Your task to perform on an android device: open app "Google Keep" Image 0: 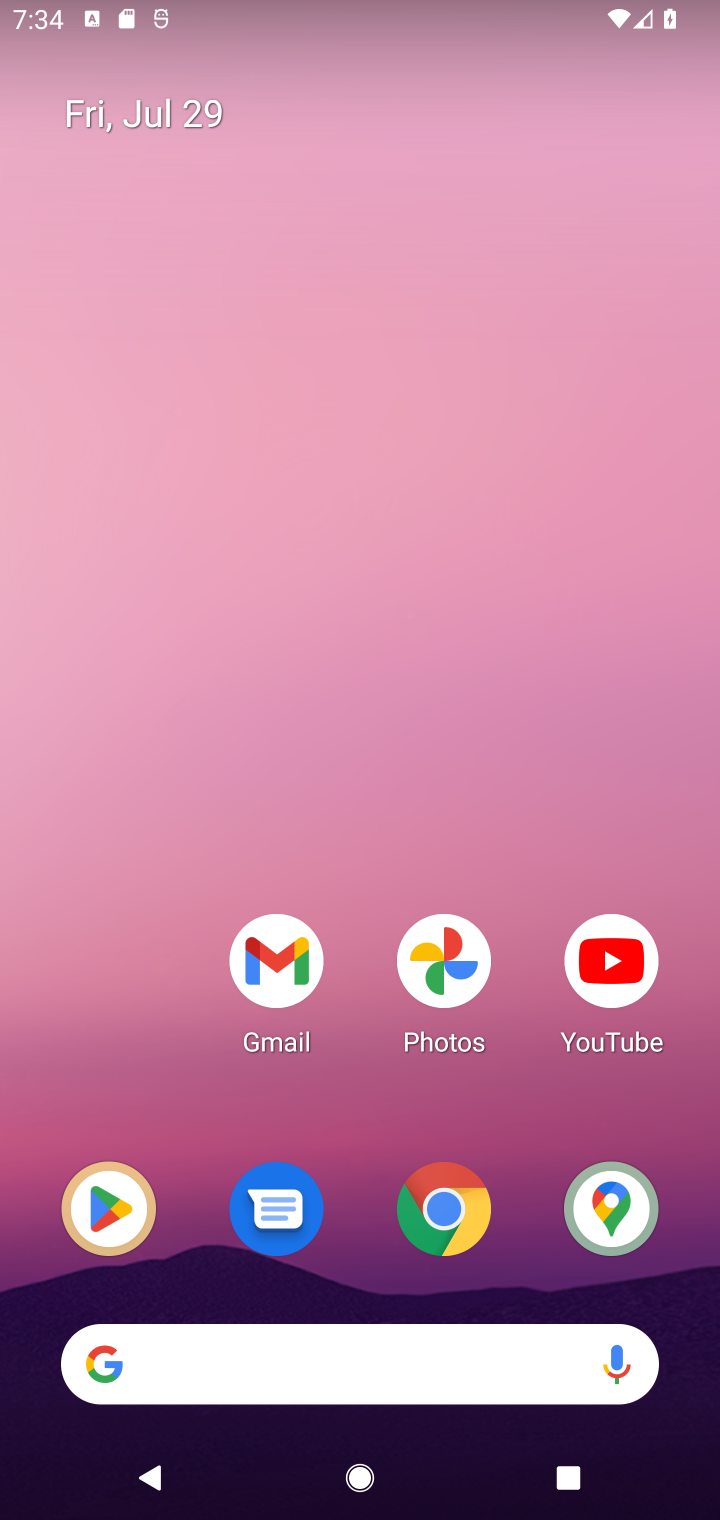
Step 0: click (107, 1191)
Your task to perform on an android device: open app "Google Keep" Image 1: 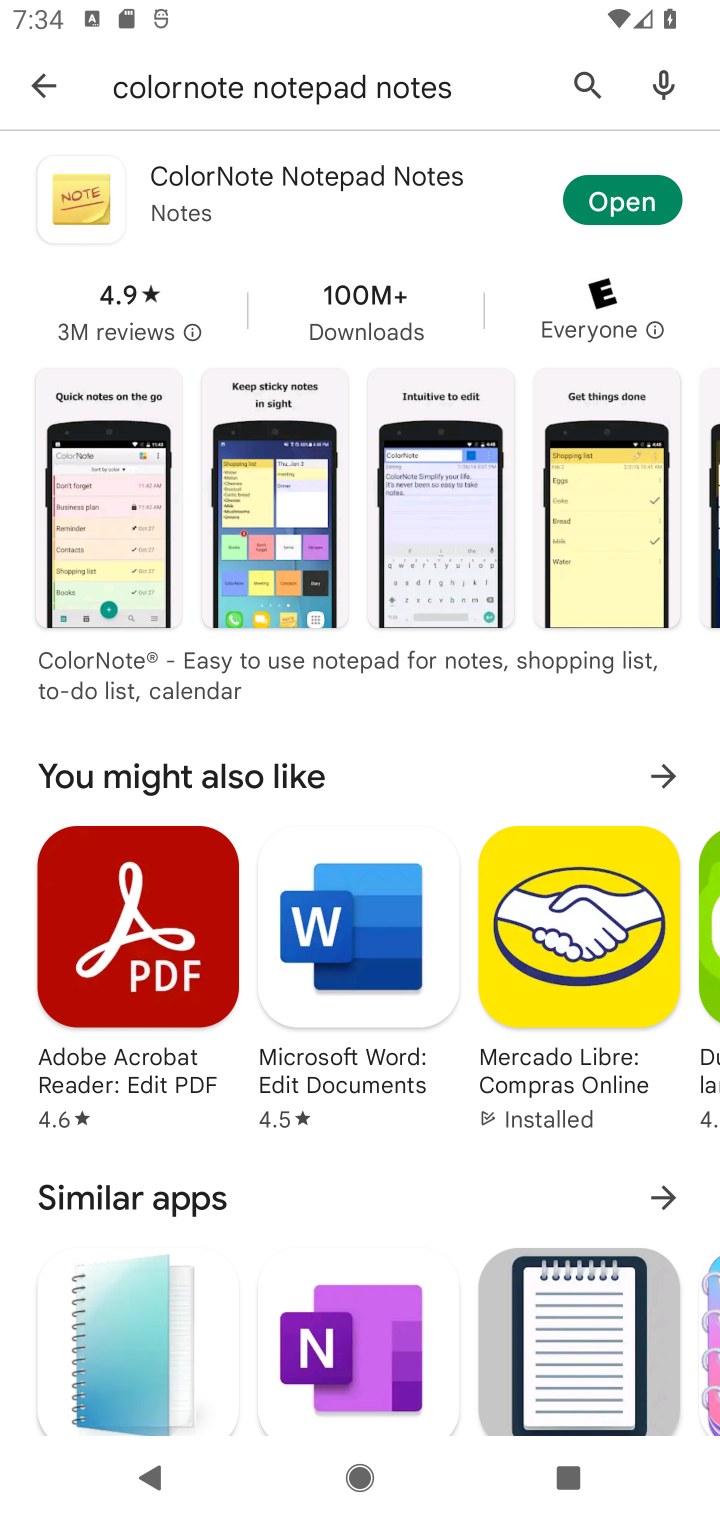
Step 1: click (584, 87)
Your task to perform on an android device: open app "Google Keep" Image 2: 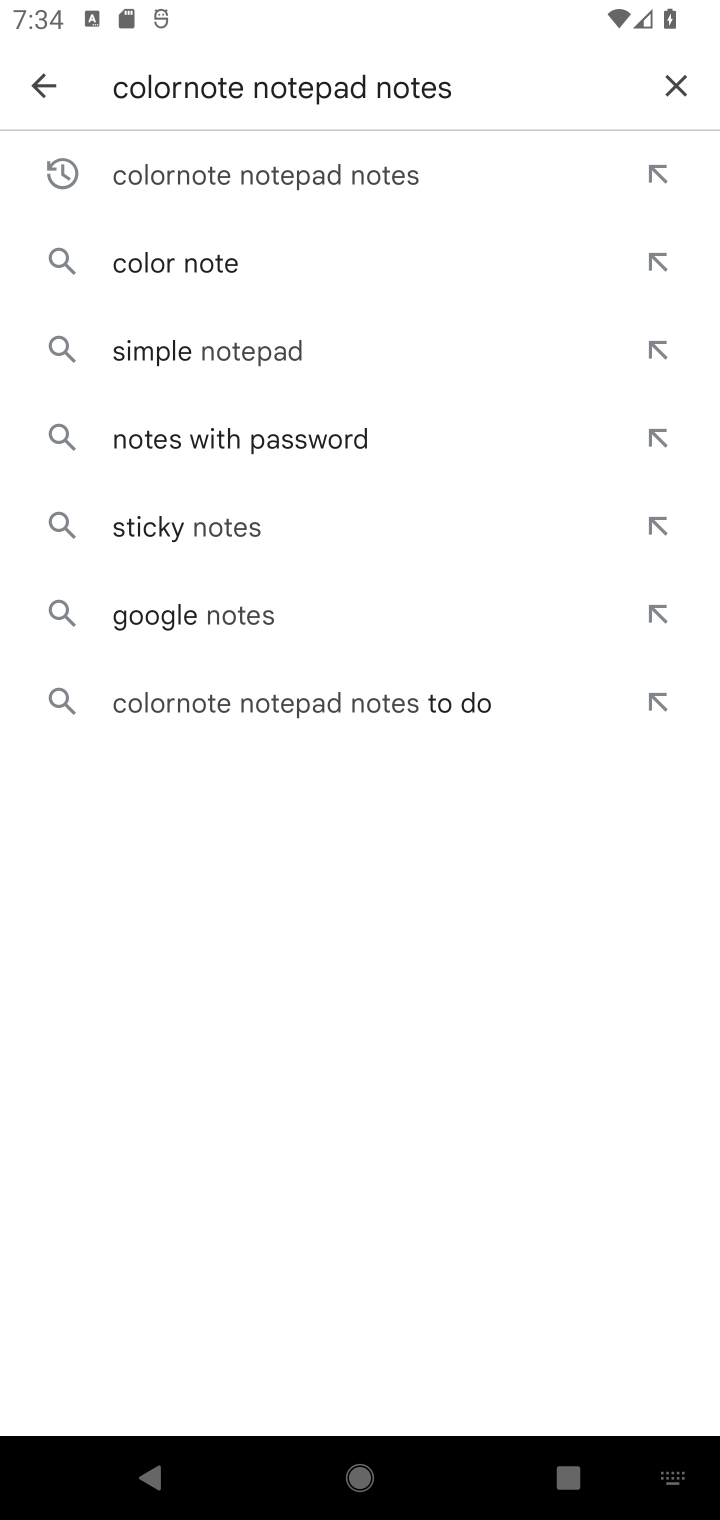
Step 2: click (662, 89)
Your task to perform on an android device: open app "Google Keep" Image 3: 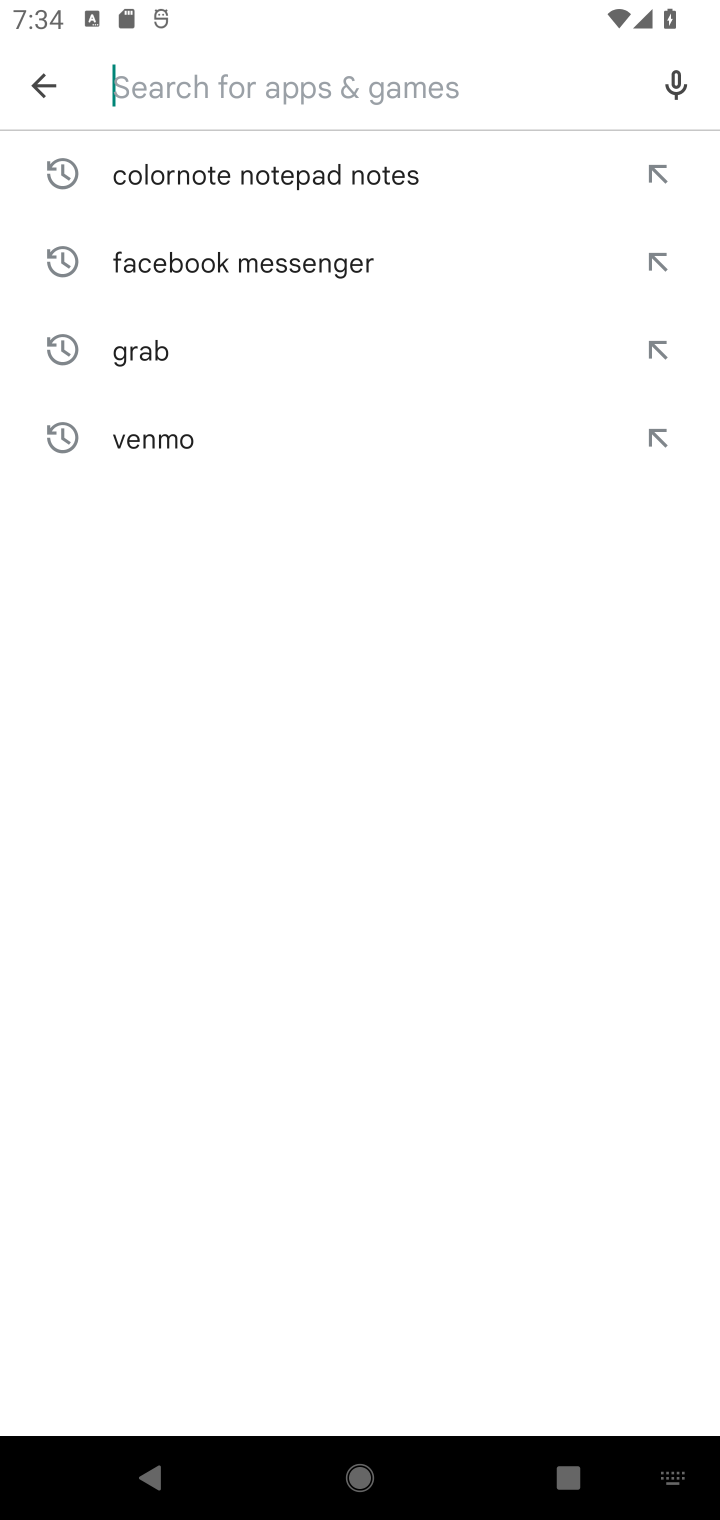
Step 3: type "Google Keep"
Your task to perform on an android device: open app "Google Keep" Image 4: 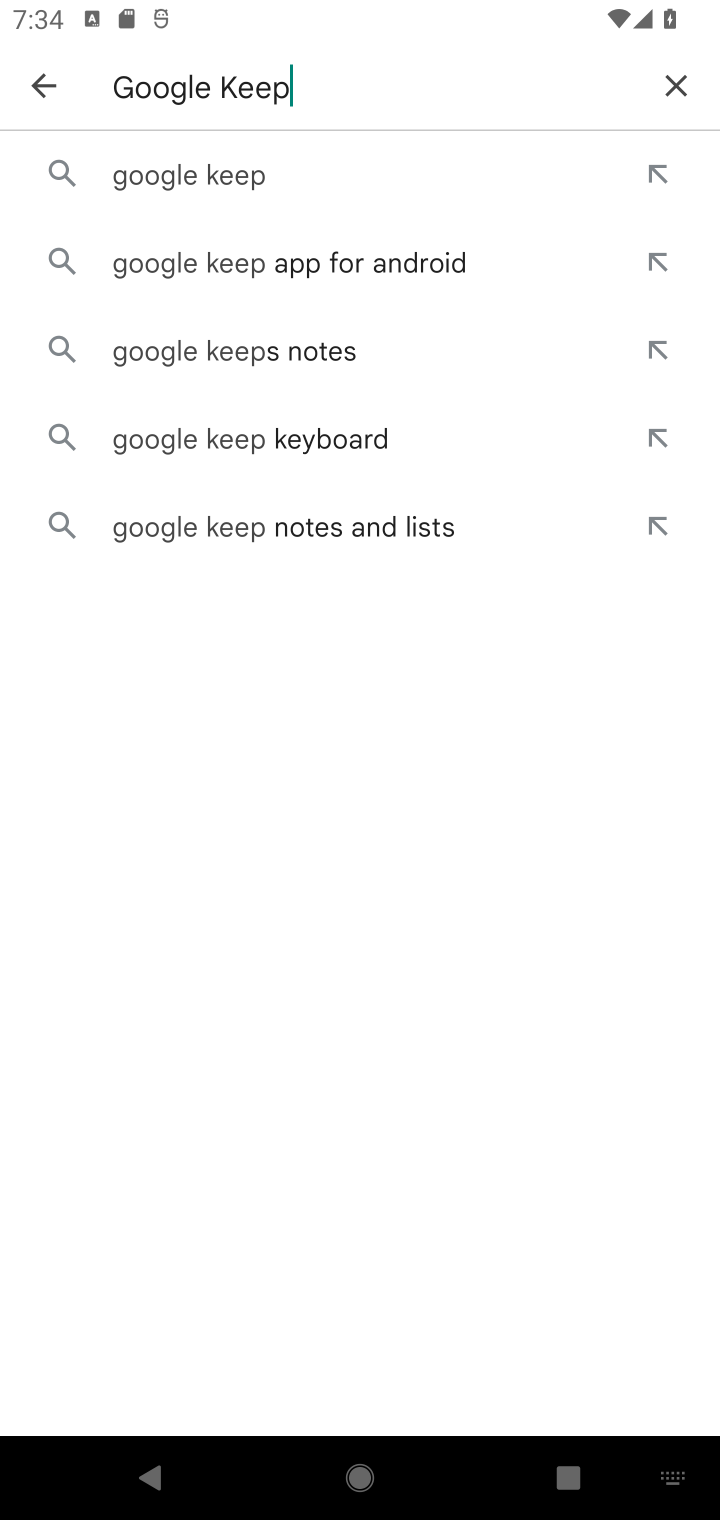
Step 4: click (201, 173)
Your task to perform on an android device: open app "Google Keep" Image 5: 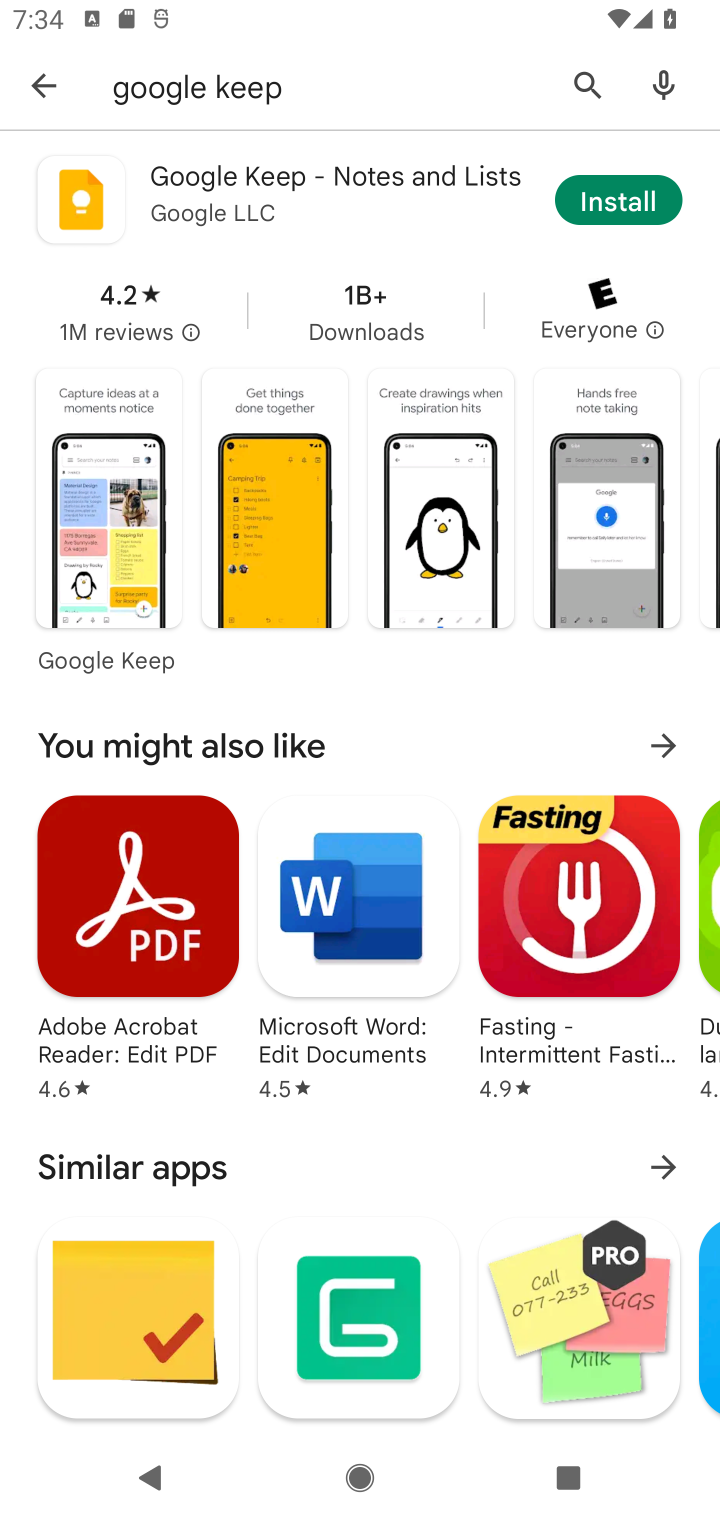
Step 5: task complete